Your task to perform on an android device: How much does a 2 bedroom apartment rent for in Washington DC? Image 0: 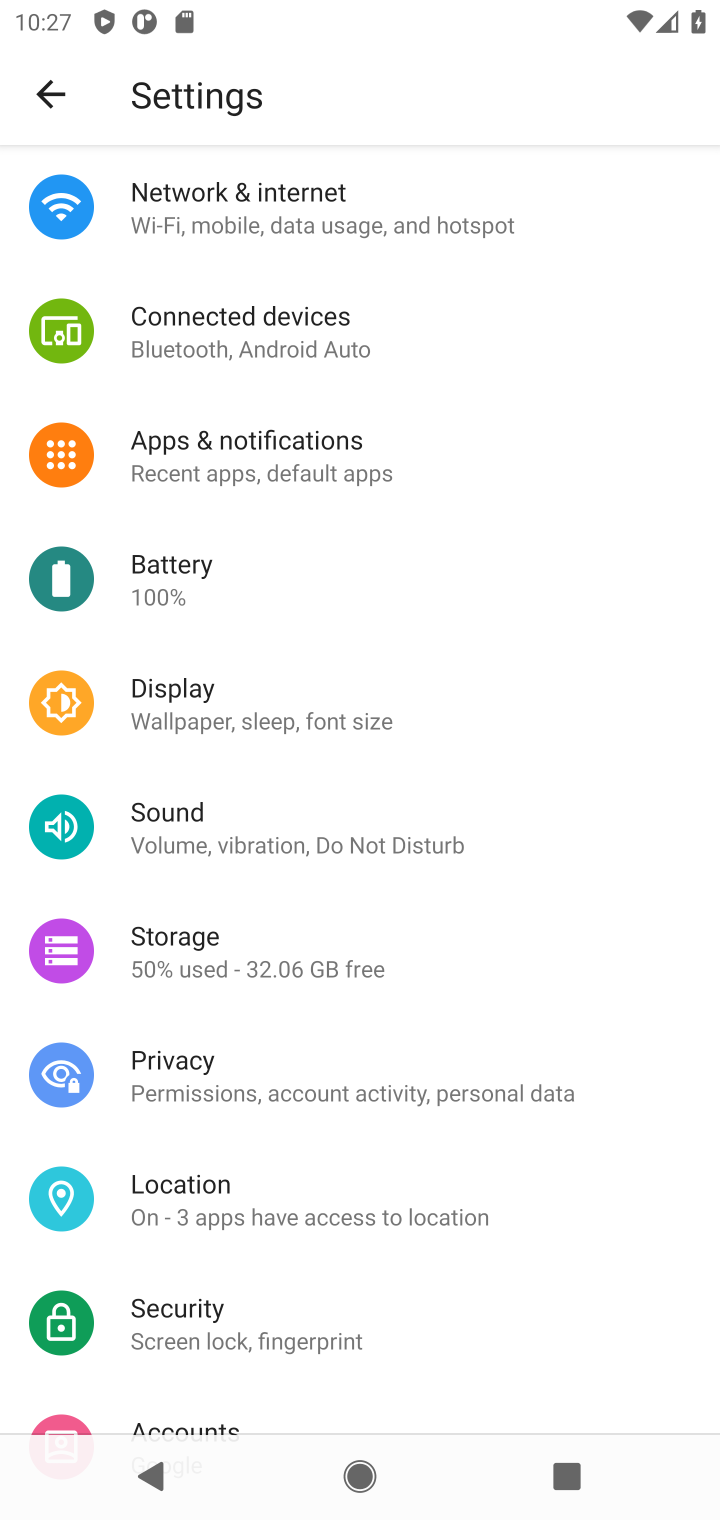
Step 0: press home button
Your task to perform on an android device: How much does a 2 bedroom apartment rent for in Washington DC? Image 1: 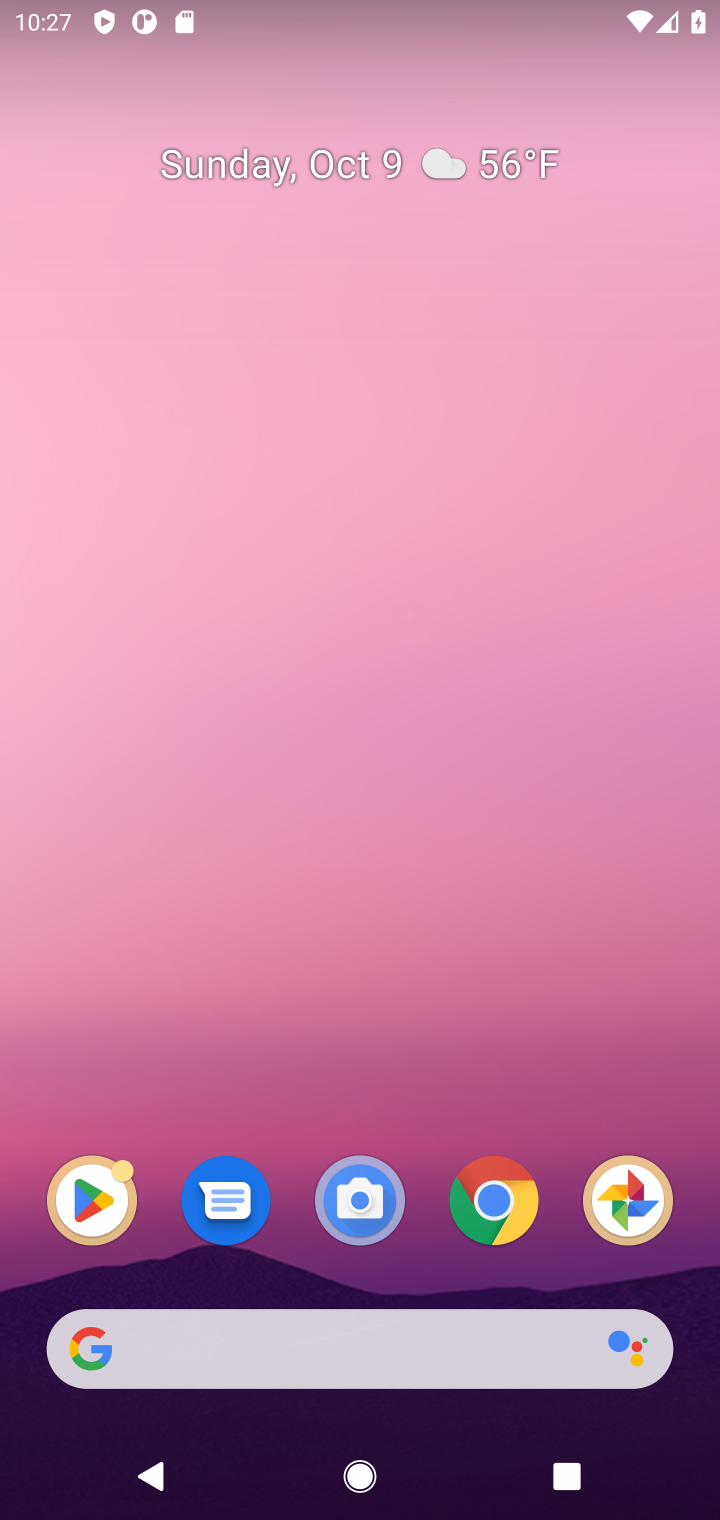
Step 1: click (476, 1207)
Your task to perform on an android device: How much does a 2 bedroom apartment rent for in Washington DC? Image 2: 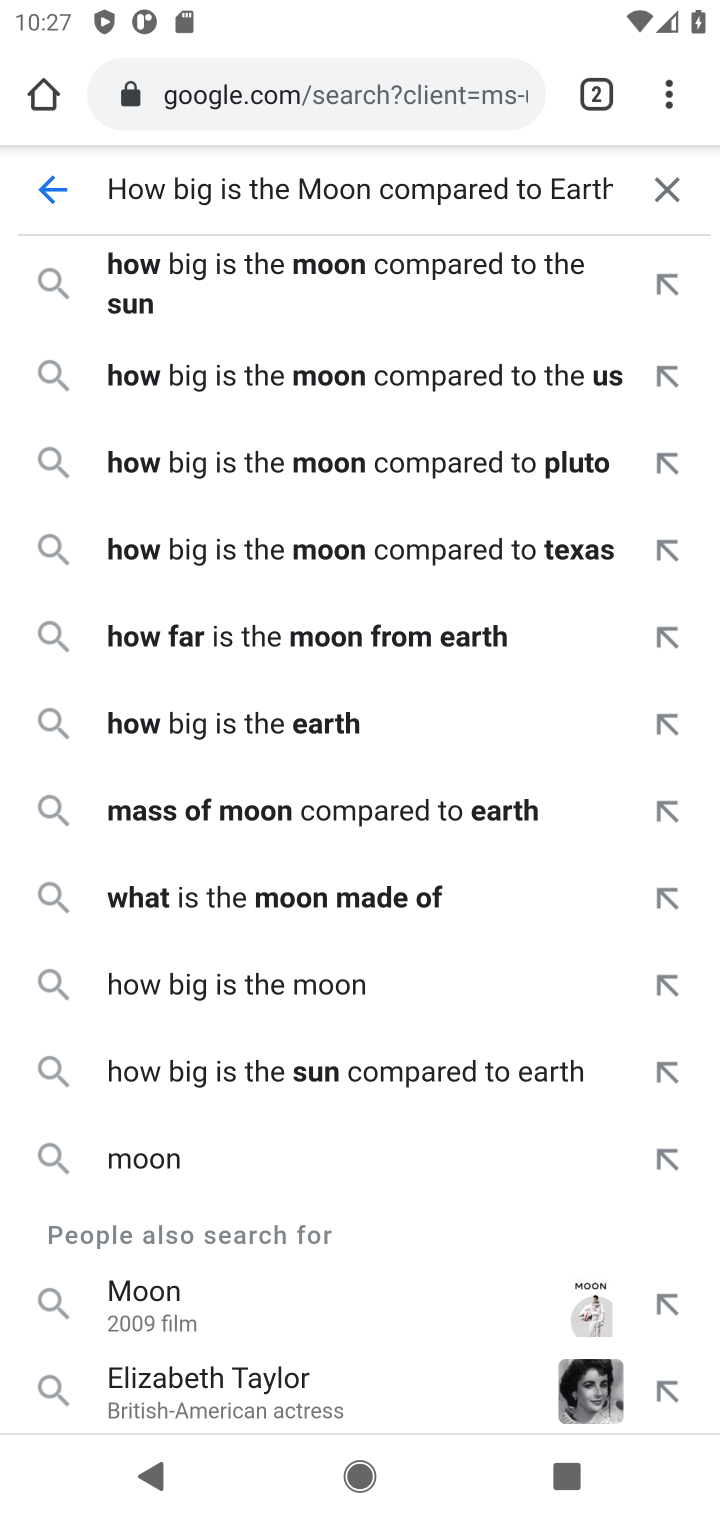
Step 2: click (658, 177)
Your task to perform on an android device: How much does a 2 bedroom apartment rent for in Washington DC? Image 3: 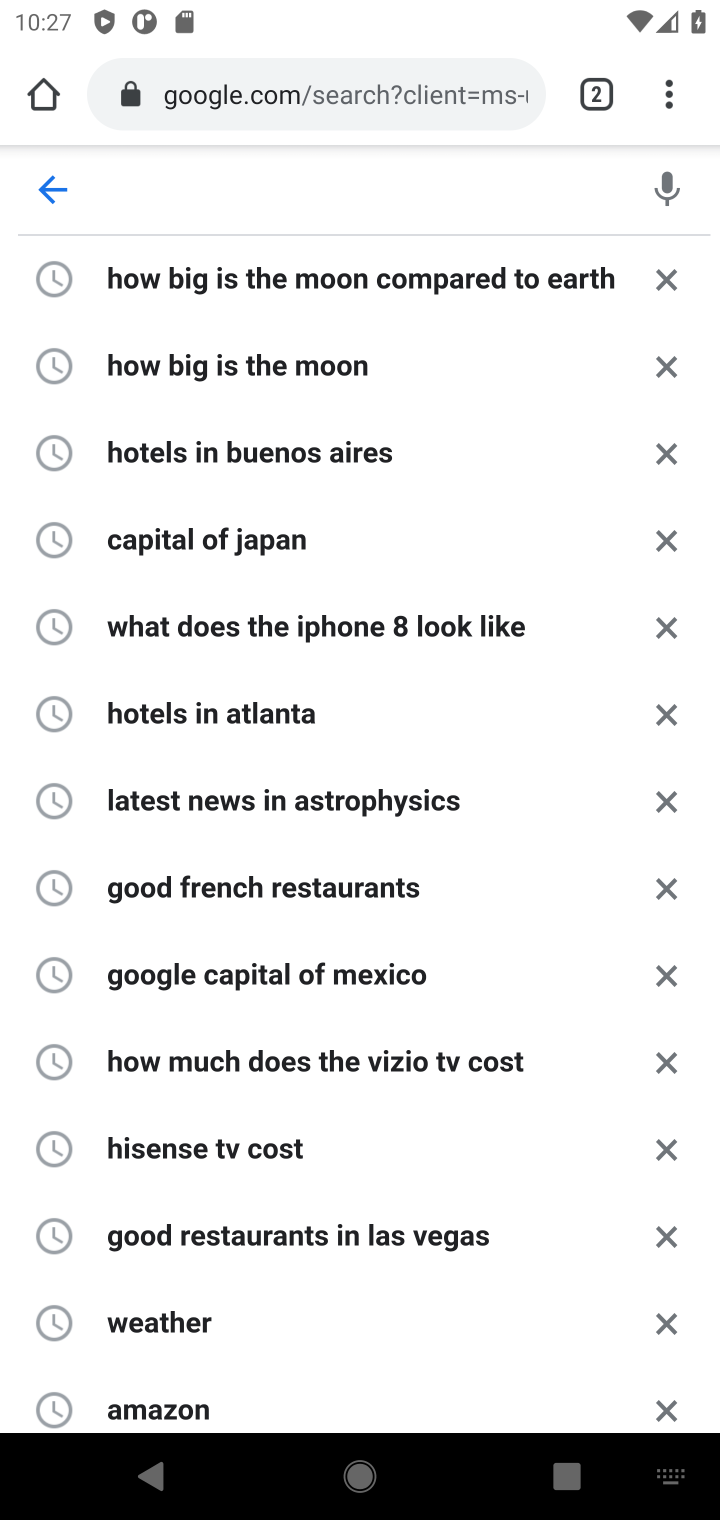
Step 3: type "How much does a 2 bedroom apartment rent for in Washington DC?"
Your task to perform on an android device: How much does a 2 bedroom apartment rent for in Washington DC? Image 4: 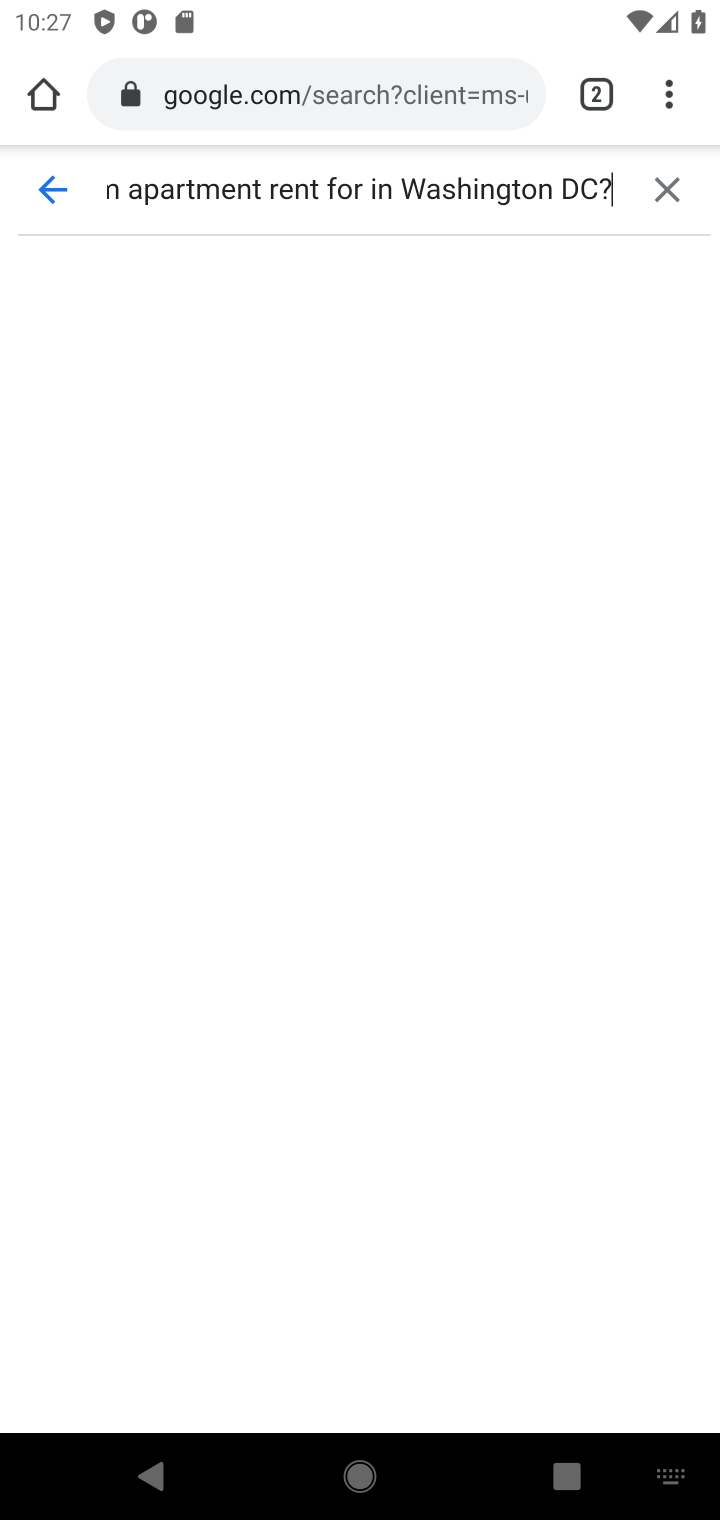
Step 4: press enter
Your task to perform on an android device: How much does a 2 bedroom apartment rent for in Washington DC? Image 5: 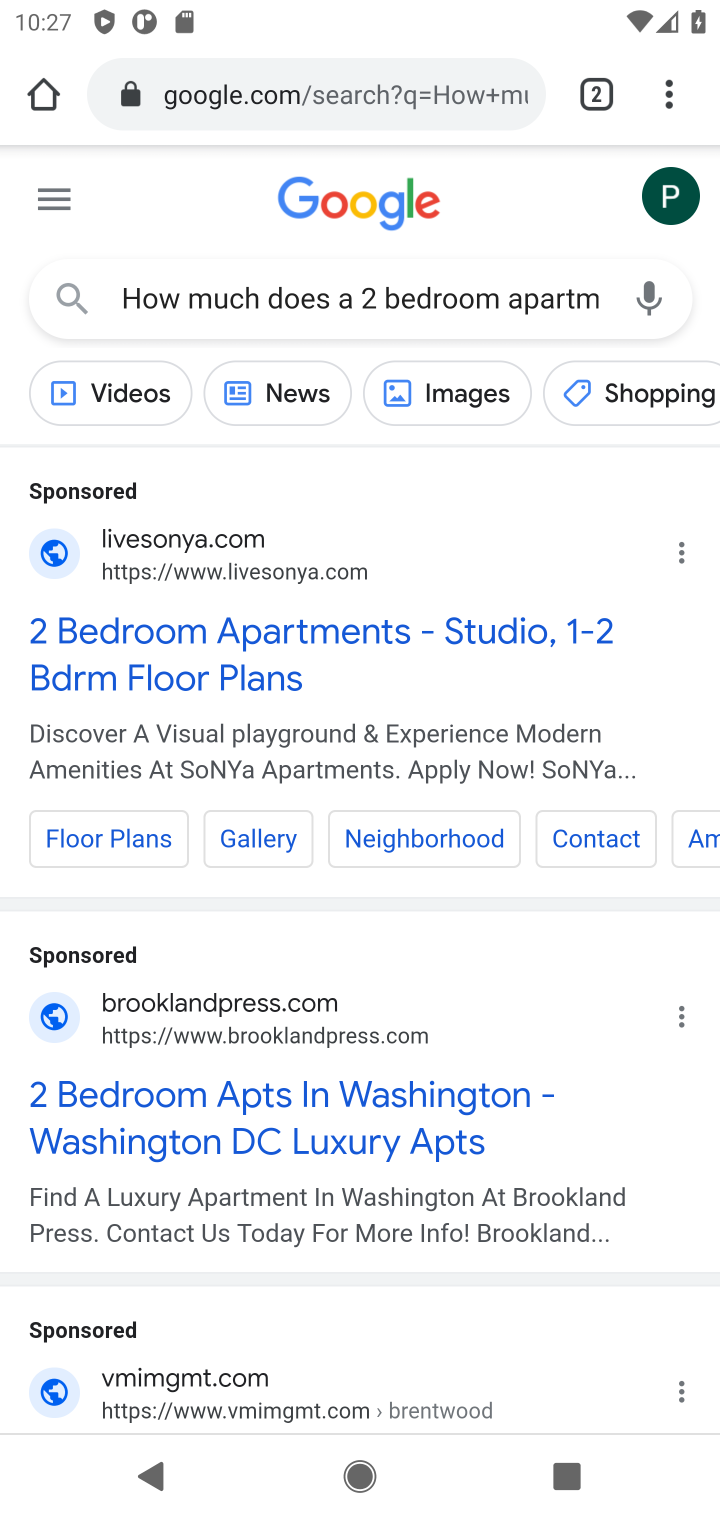
Step 5: click (404, 673)
Your task to perform on an android device: How much does a 2 bedroom apartment rent for in Washington DC? Image 6: 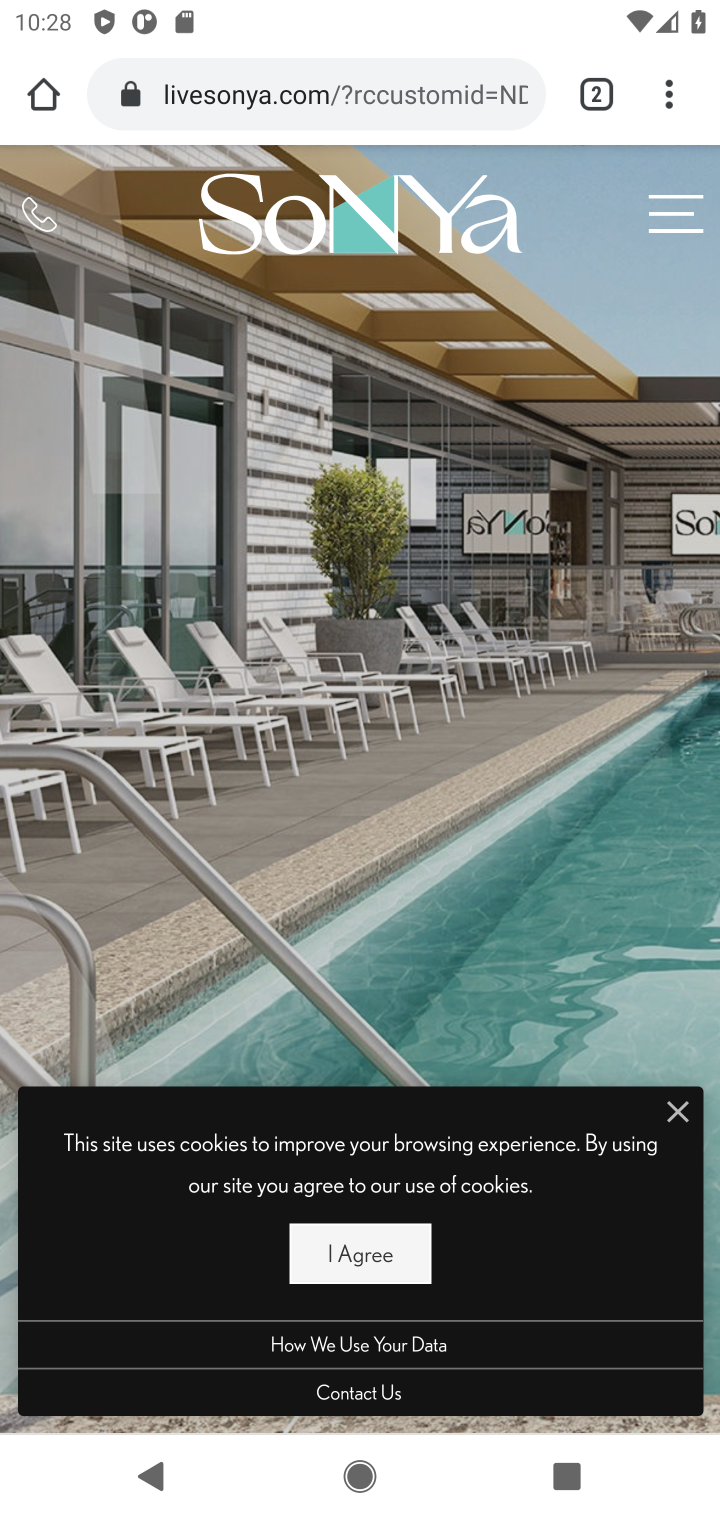
Step 6: task complete